Your task to perform on an android device: turn notification dots off Image 0: 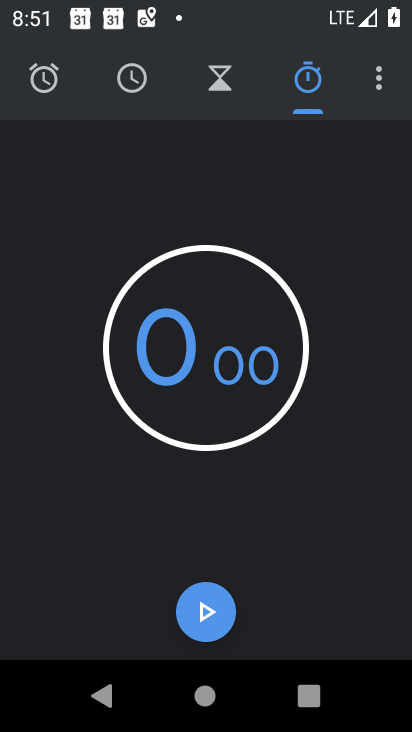
Step 0: press home button
Your task to perform on an android device: turn notification dots off Image 1: 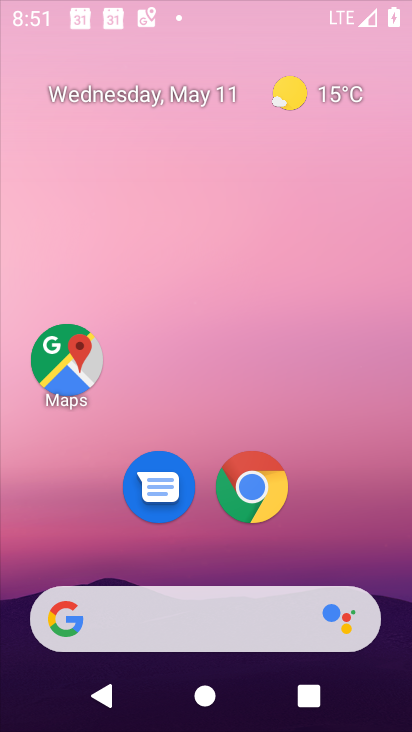
Step 1: drag from (244, 668) to (259, 199)
Your task to perform on an android device: turn notification dots off Image 2: 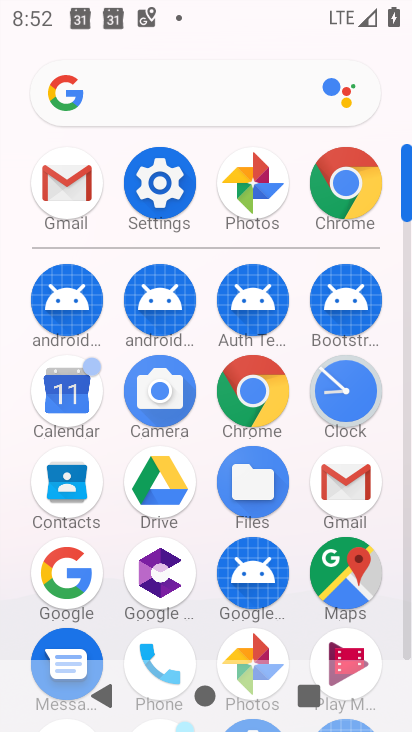
Step 2: click (172, 178)
Your task to perform on an android device: turn notification dots off Image 3: 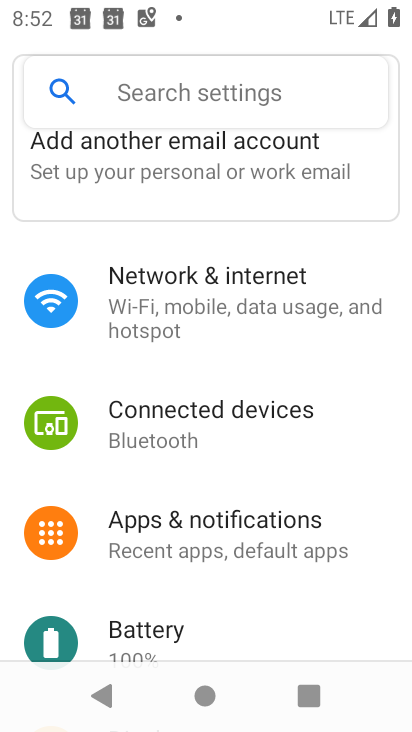
Step 3: click (173, 92)
Your task to perform on an android device: turn notification dots off Image 4: 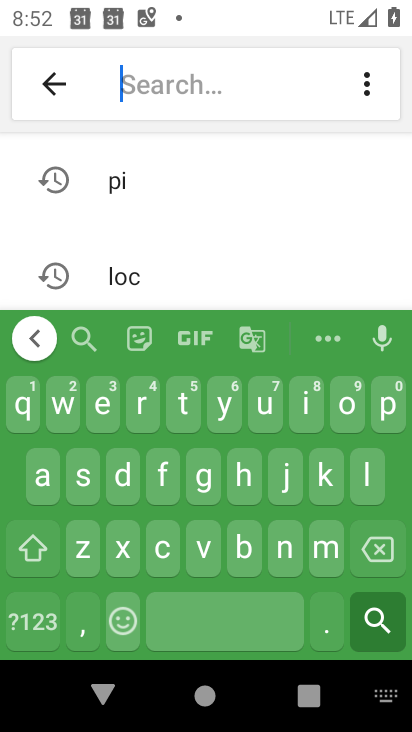
Step 4: click (120, 475)
Your task to perform on an android device: turn notification dots off Image 5: 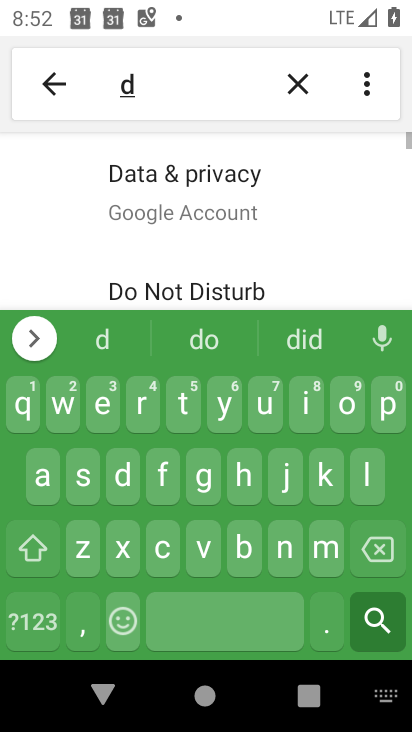
Step 5: click (337, 403)
Your task to perform on an android device: turn notification dots off Image 6: 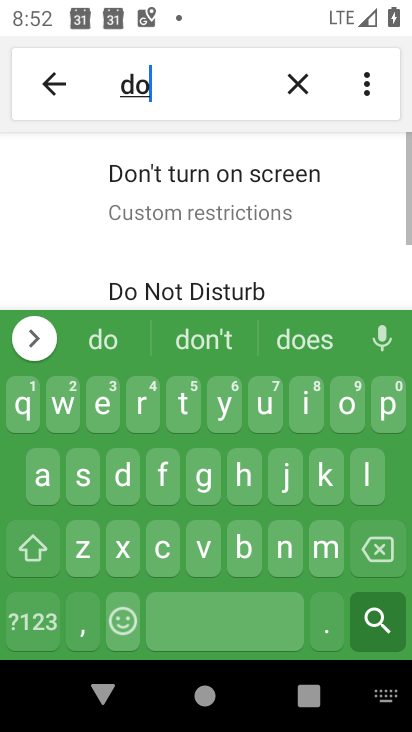
Step 6: click (182, 410)
Your task to perform on an android device: turn notification dots off Image 7: 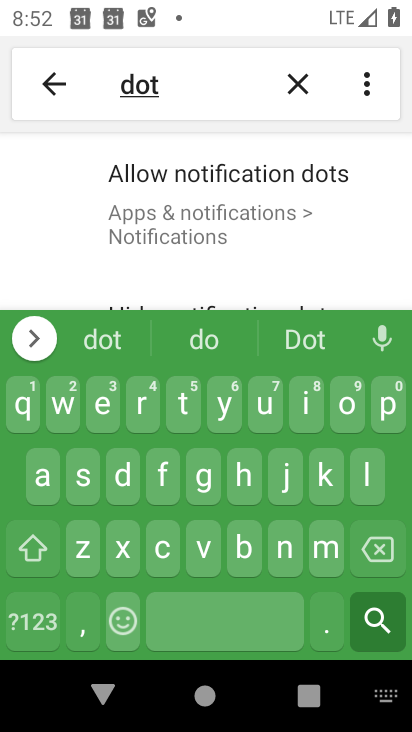
Step 7: click (232, 195)
Your task to perform on an android device: turn notification dots off Image 8: 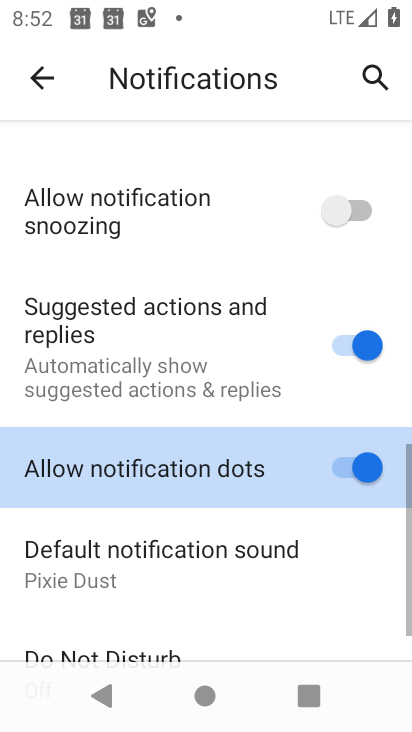
Step 8: click (168, 459)
Your task to perform on an android device: turn notification dots off Image 9: 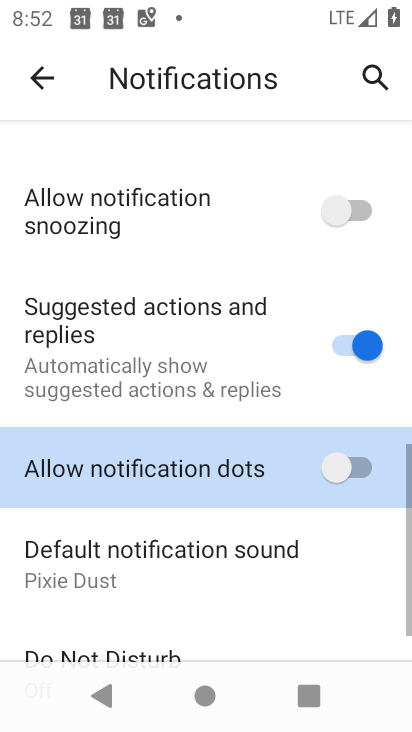
Step 9: click (155, 457)
Your task to perform on an android device: turn notification dots off Image 10: 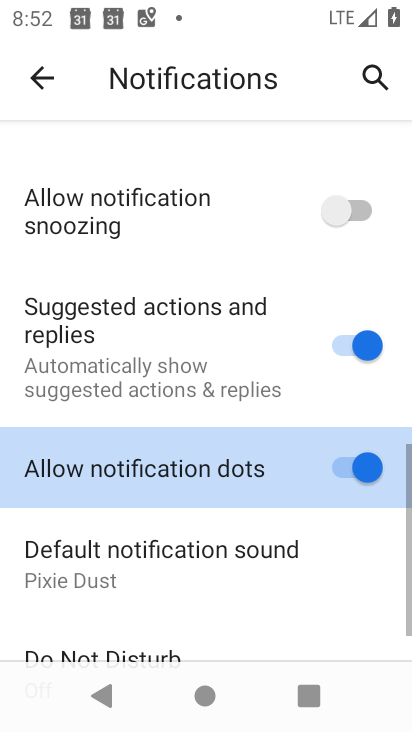
Step 10: task complete